Your task to perform on an android device: What's the weather going to be tomorrow? Image 0: 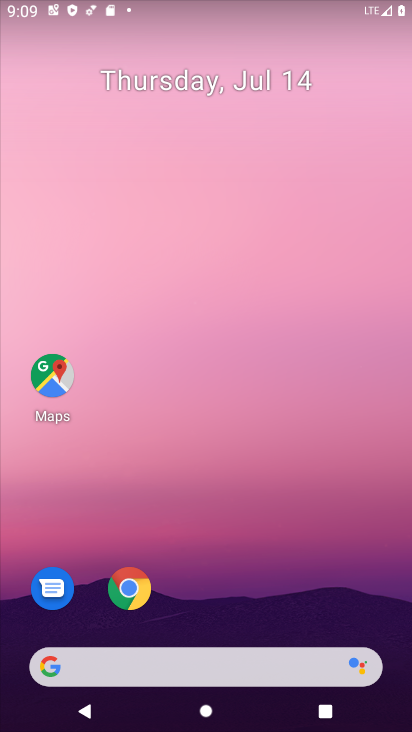
Step 0: drag from (403, 630) to (223, 109)
Your task to perform on an android device: What's the weather going to be tomorrow? Image 1: 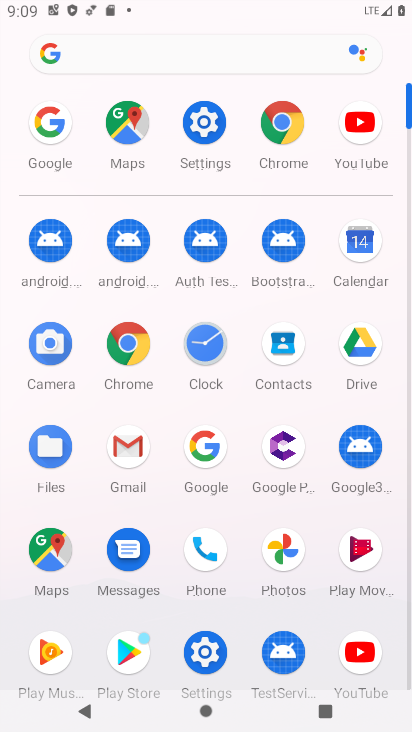
Step 1: click (193, 460)
Your task to perform on an android device: What's the weather going to be tomorrow? Image 2: 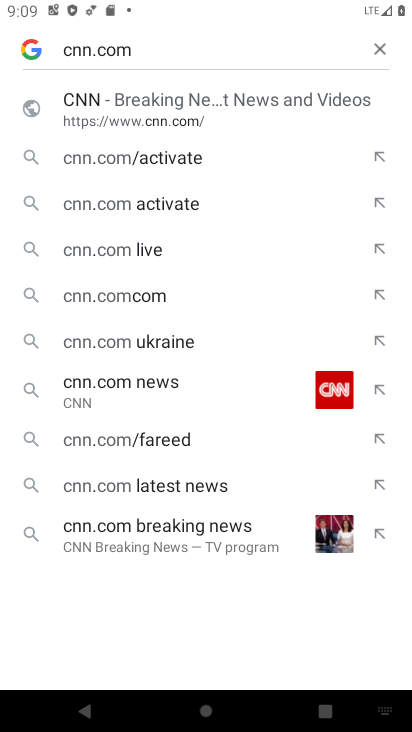
Step 2: click (366, 45)
Your task to perform on an android device: What's the weather going to be tomorrow? Image 3: 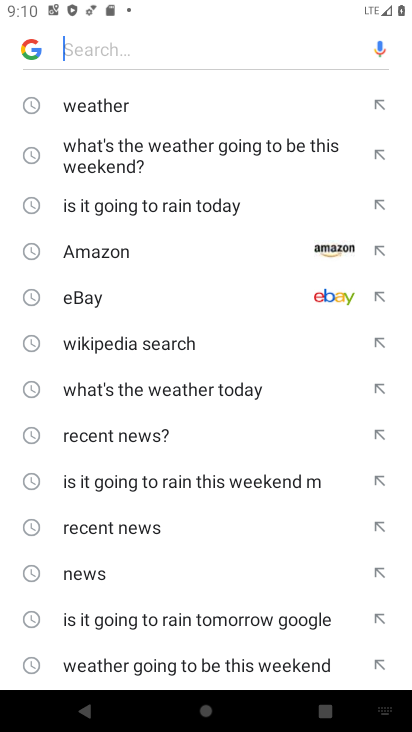
Step 3: drag from (170, 566) to (186, 279)
Your task to perform on an android device: What's the weather going to be tomorrow? Image 4: 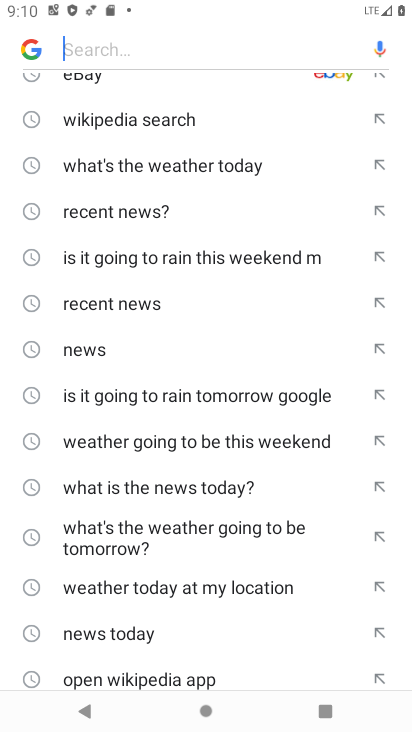
Step 4: click (176, 536)
Your task to perform on an android device: What's the weather going to be tomorrow? Image 5: 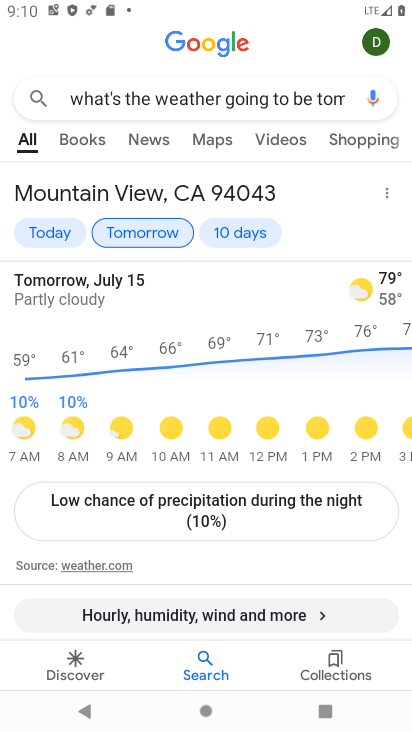
Step 5: task complete